Your task to perform on an android device: Go to sound settings Image 0: 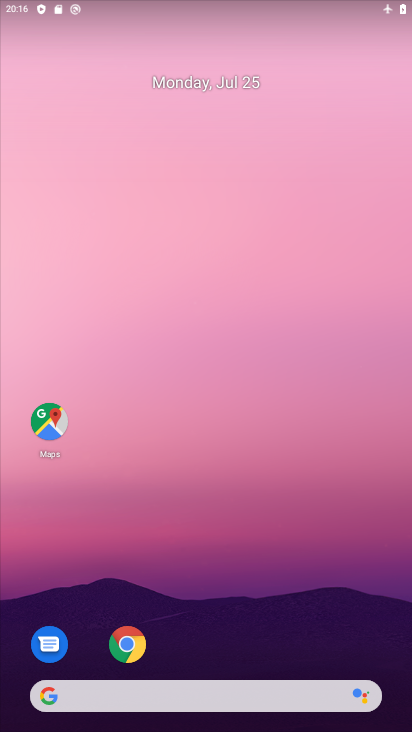
Step 0: drag from (272, 653) to (263, 189)
Your task to perform on an android device: Go to sound settings Image 1: 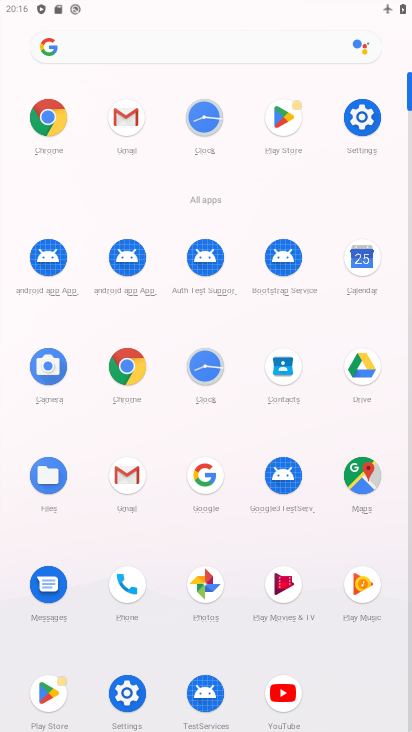
Step 1: click (365, 112)
Your task to perform on an android device: Go to sound settings Image 2: 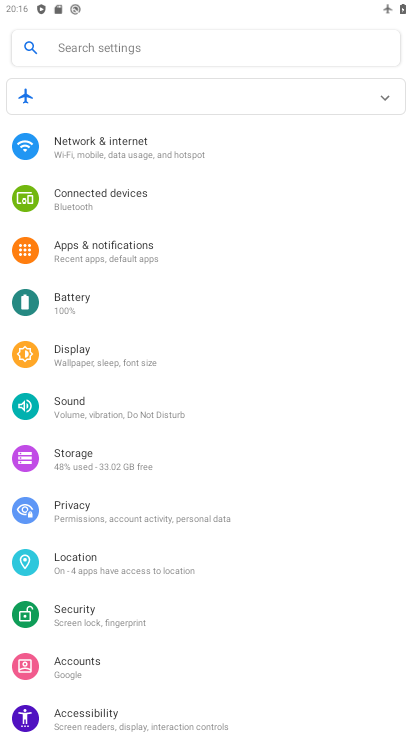
Step 2: click (111, 402)
Your task to perform on an android device: Go to sound settings Image 3: 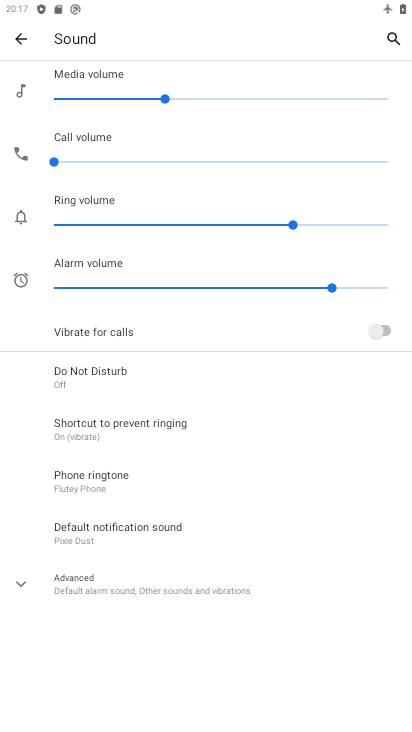
Step 3: task complete